Your task to perform on an android device: Show me the alarms in the clock app Image 0: 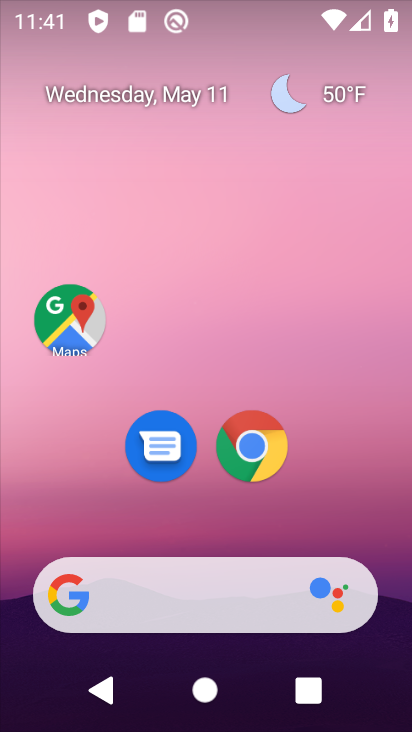
Step 0: drag from (335, 471) to (337, 161)
Your task to perform on an android device: Show me the alarms in the clock app Image 1: 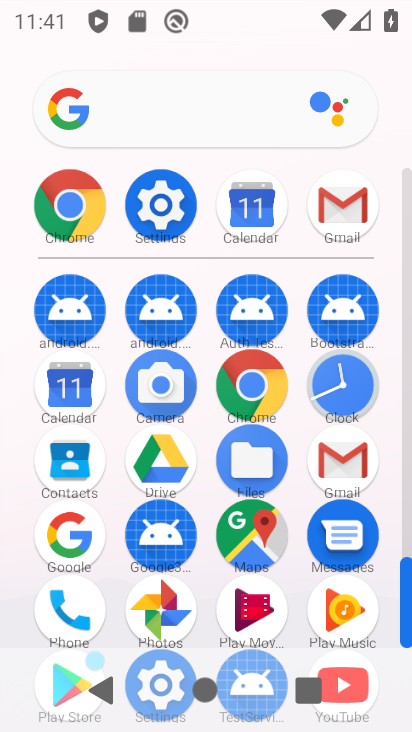
Step 1: click (335, 388)
Your task to perform on an android device: Show me the alarms in the clock app Image 2: 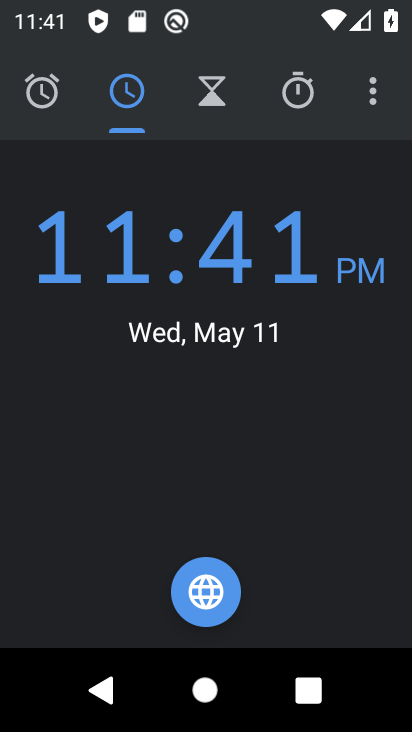
Step 2: click (39, 87)
Your task to perform on an android device: Show me the alarms in the clock app Image 3: 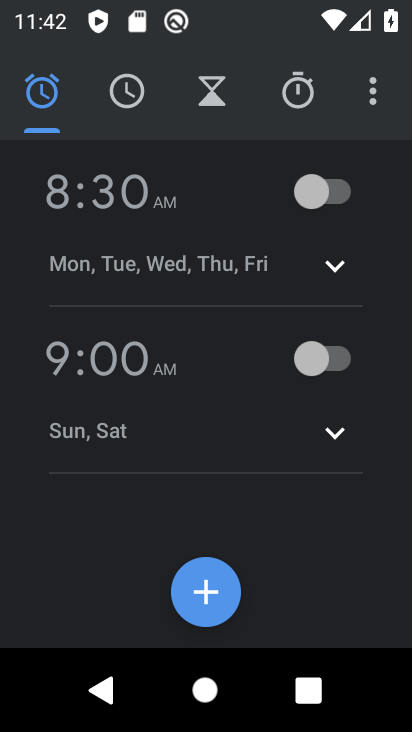
Step 3: task complete